Your task to perform on an android device: Open the calendar app, open the side menu, and click the "Day" option Image 0: 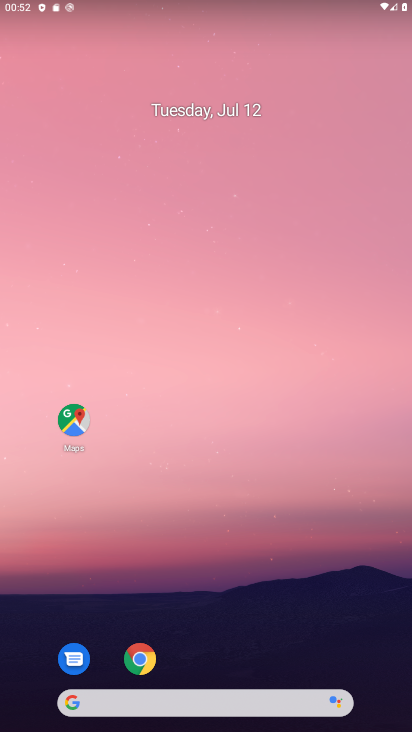
Step 0: drag from (180, 651) to (203, 291)
Your task to perform on an android device: Open the calendar app, open the side menu, and click the "Day" option Image 1: 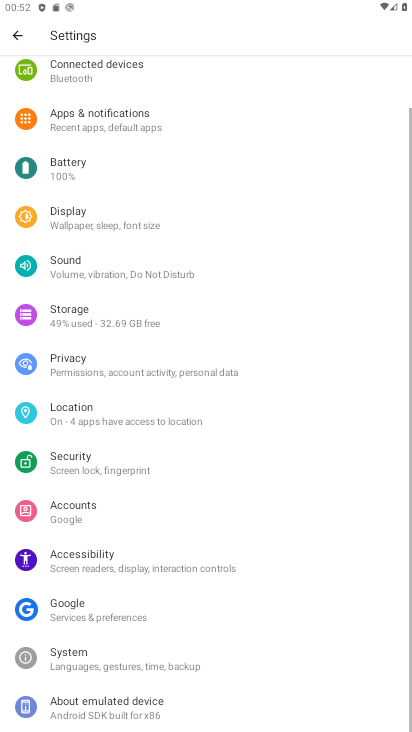
Step 1: press home button
Your task to perform on an android device: Open the calendar app, open the side menu, and click the "Day" option Image 2: 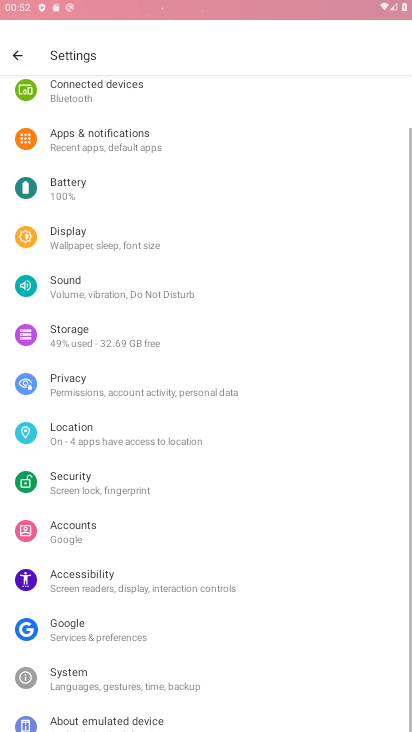
Step 2: drag from (181, 634) to (266, 166)
Your task to perform on an android device: Open the calendar app, open the side menu, and click the "Day" option Image 3: 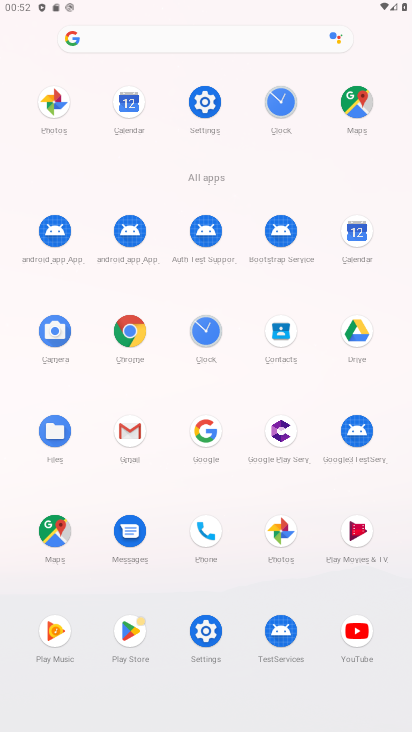
Step 3: click (352, 234)
Your task to perform on an android device: Open the calendar app, open the side menu, and click the "Day" option Image 4: 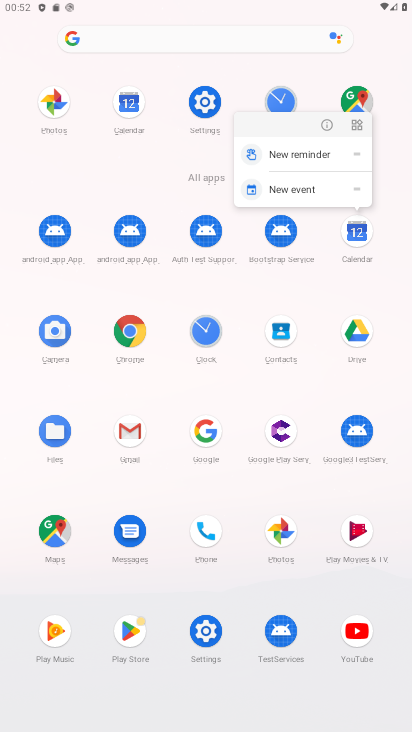
Step 4: click (325, 127)
Your task to perform on an android device: Open the calendar app, open the side menu, and click the "Day" option Image 5: 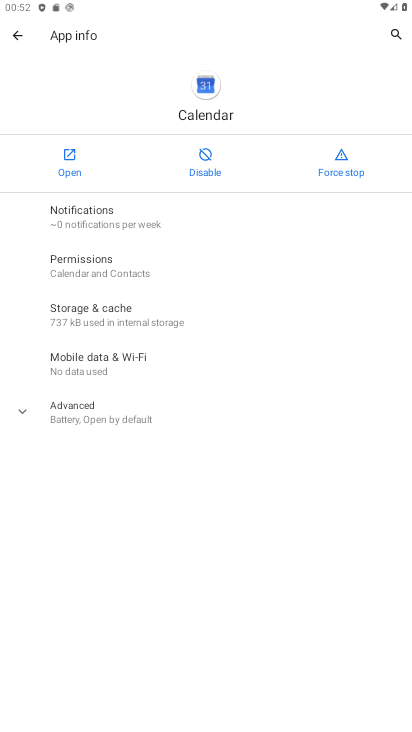
Step 5: click (58, 165)
Your task to perform on an android device: Open the calendar app, open the side menu, and click the "Day" option Image 6: 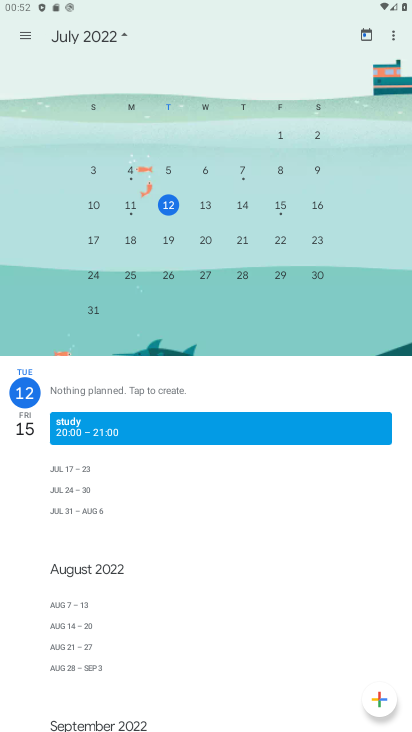
Step 6: click (28, 29)
Your task to perform on an android device: Open the calendar app, open the side menu, and click the "Day" option Image 7: 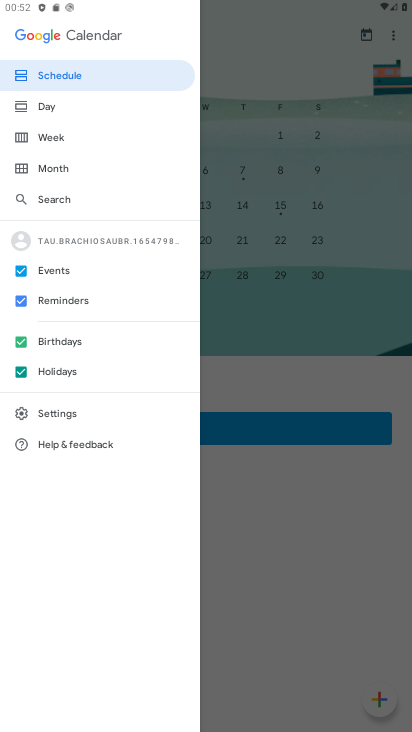
Step 7: click (53, 105)
Your task to perform on an android device: Open the calendar app, open the side menu, and click the "Day" option Image 8: 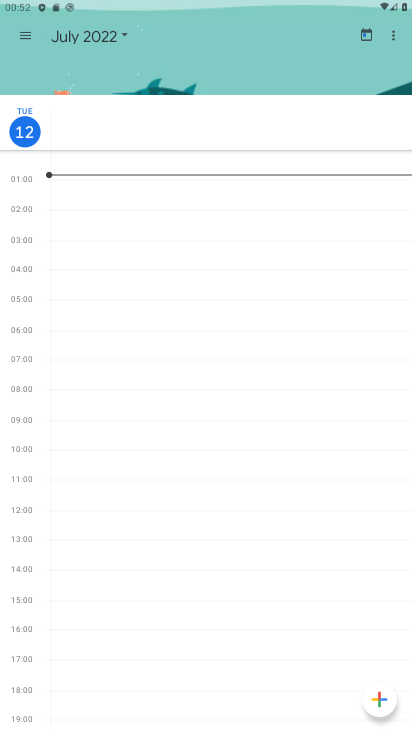
Step 8: task complete